Your task to perform on an android device: Open Google Maps Image 0: 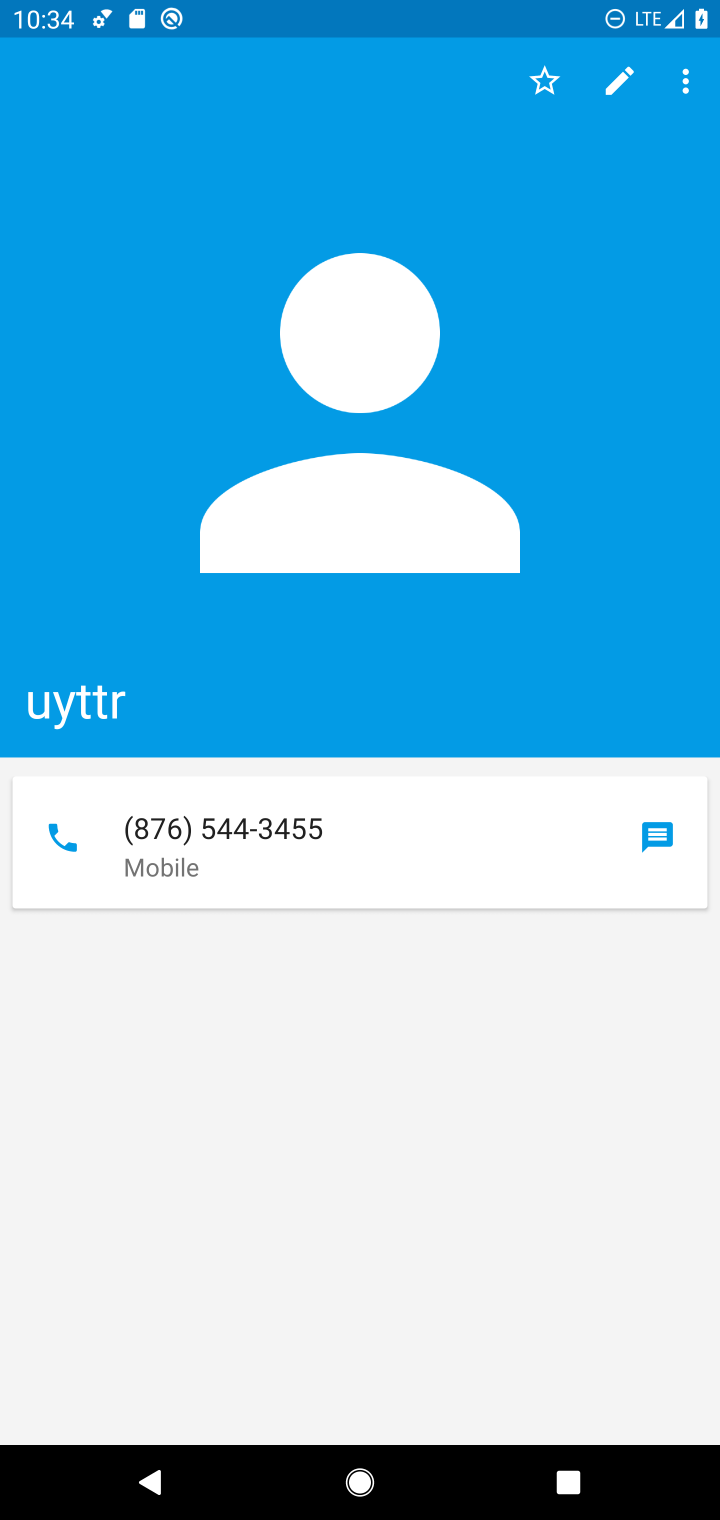
Step 0: press home button
Your task to perform on an android device: Open Google Maps Image 1: 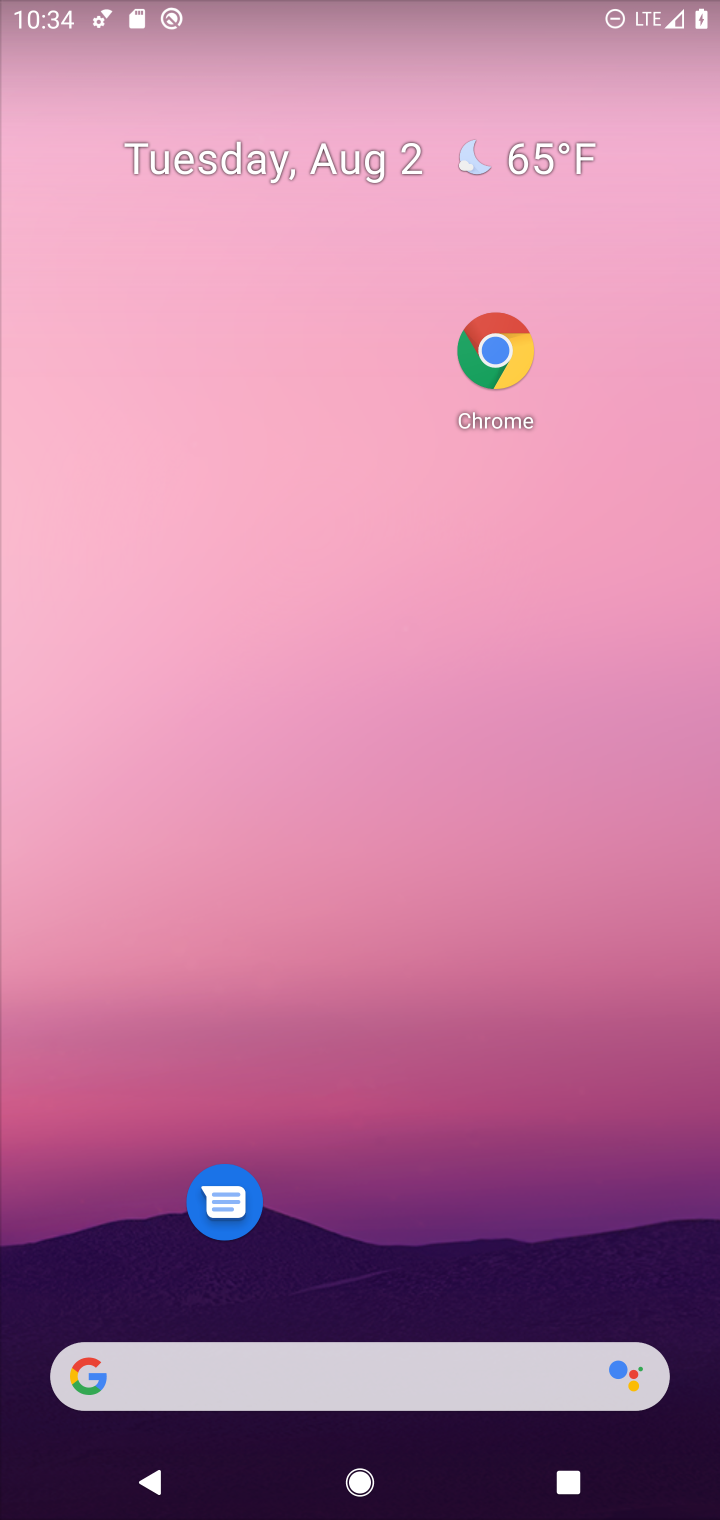
Step 1: drag from (385, 1264) to (355, 135)
Your task to perform on an android device: Open Google Maps Image 2: 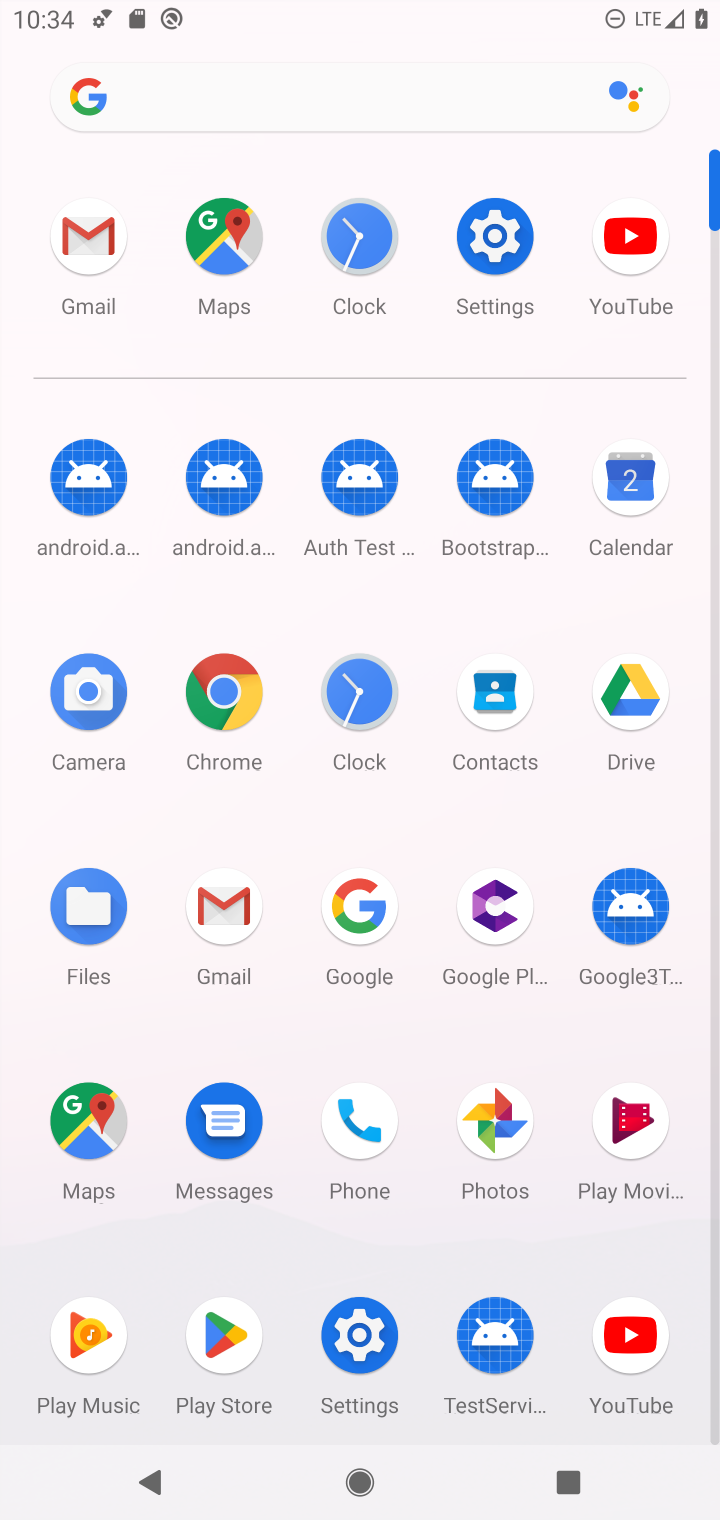
Step 2: click (217, 238)
Your task to perform on an android device: Open Google Maps Image 3: 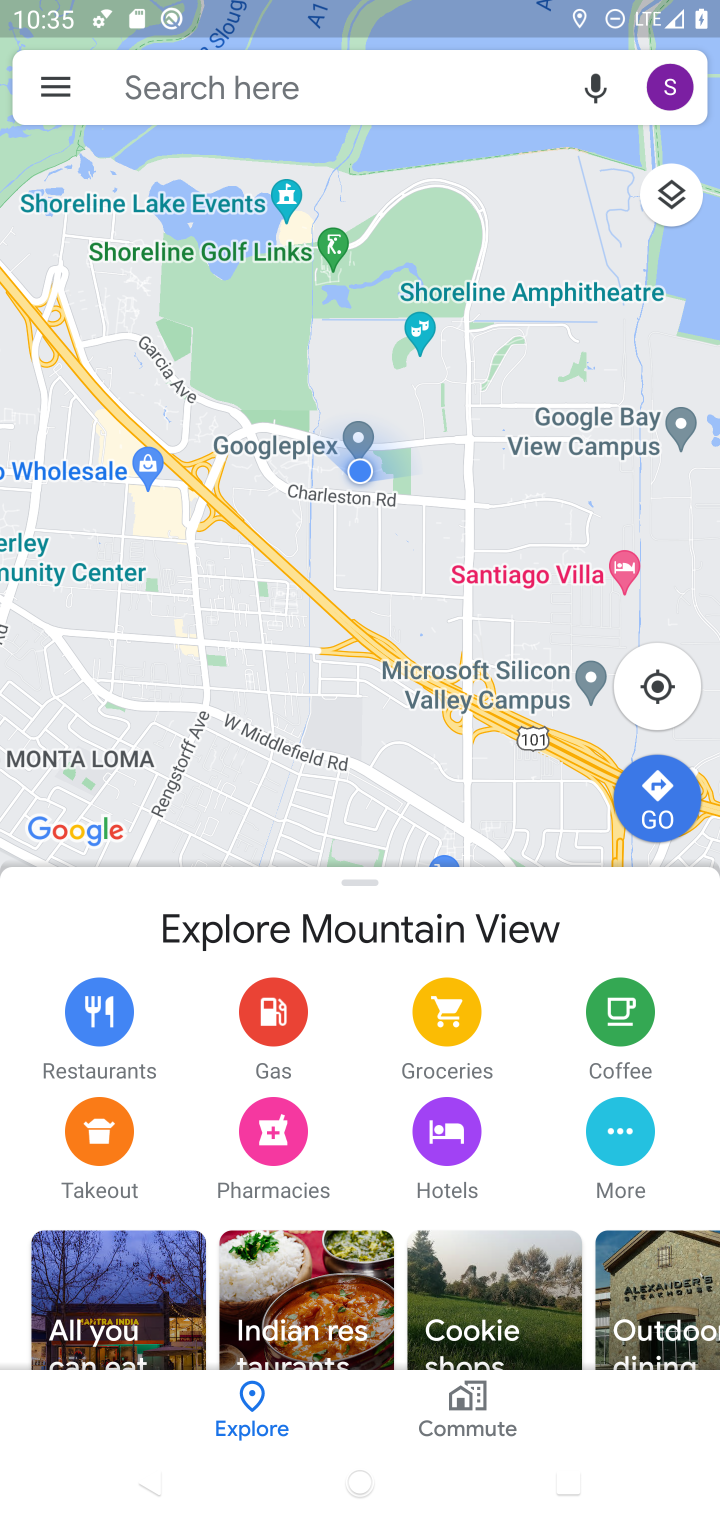
Step 3: task complete